Your task to perform on an android device: Open the calendar and show me this week's events Image 0: 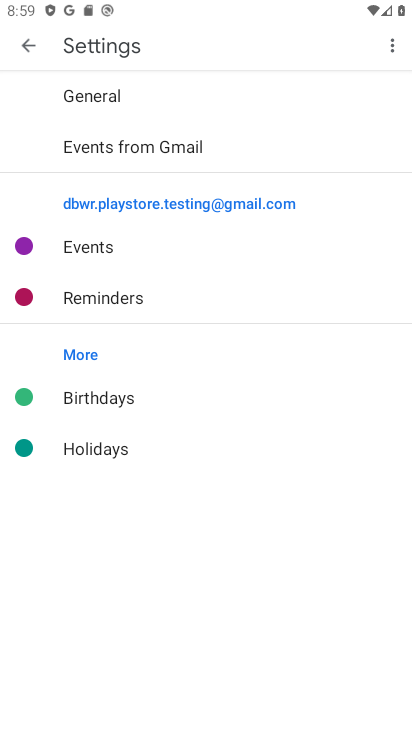
Step 0: press home button
Your task to perform on an android device: Open the calendar and show me this week's events Image 1: 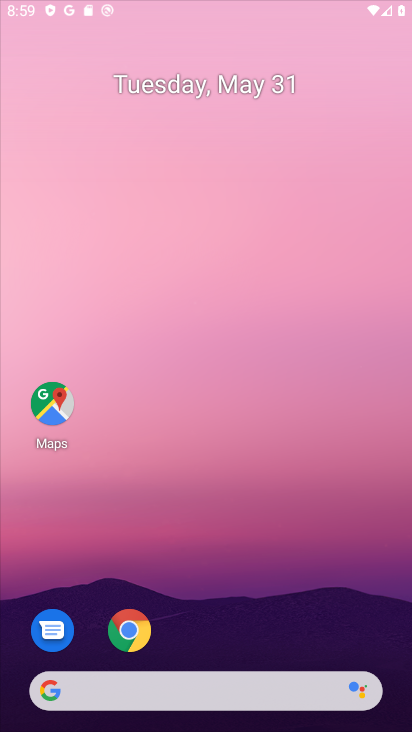
Step 1: drag from (109, 726) to (184, 0)
Your task to perform on an android device: Open the calendar and show me this week's events Image 2: 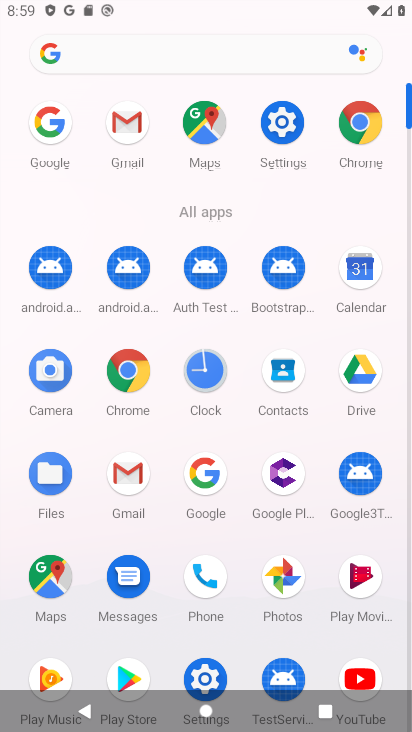
Step 2: click (345, 265)
Your task to perform on an android device: Open the calendar and show me this week's events Image 3: 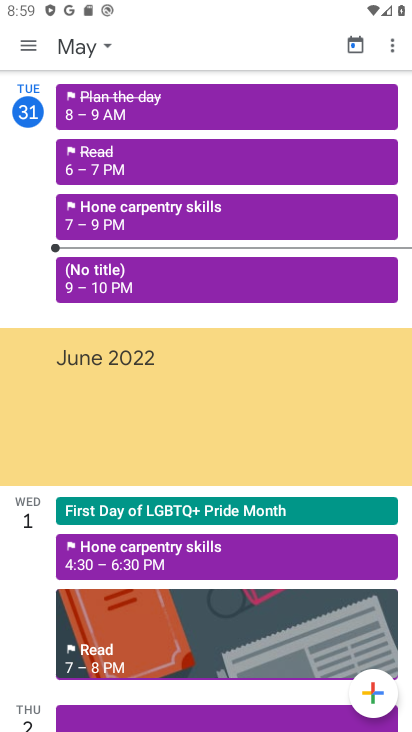
Step 3: click (93, 35)
Your task to perform on an android device: Open the calendar and show me this week's events Image 4: 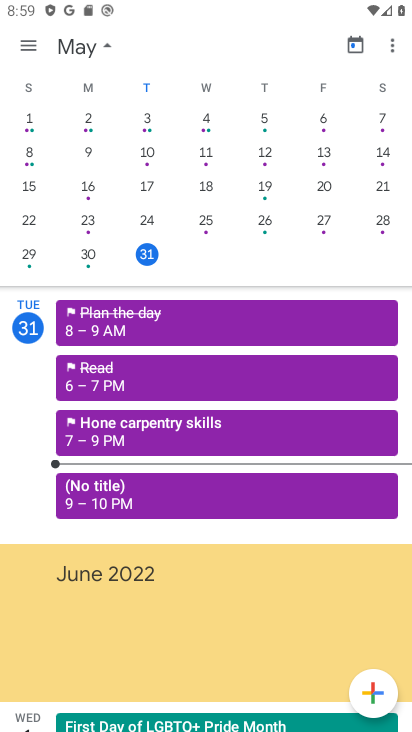
Step 4: drag from (253, 253) to (5, 213)
Your task to perform on an android device: Open the calendar and show me this week's events Image 5: 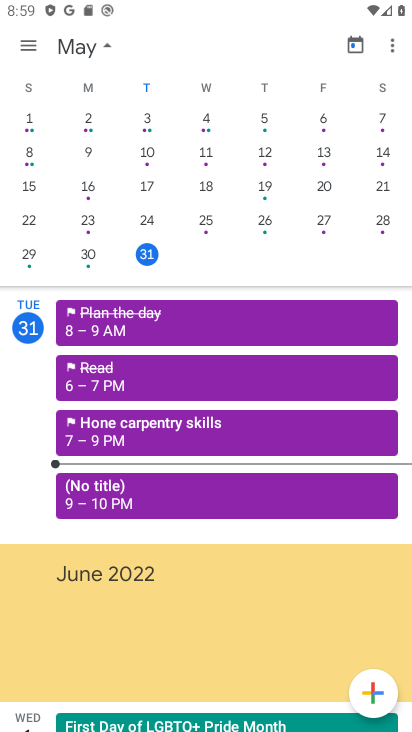
Step 5: click (349, 261)
Your task to perform on an android device: Open the calendar and show me this week's events Image 6: 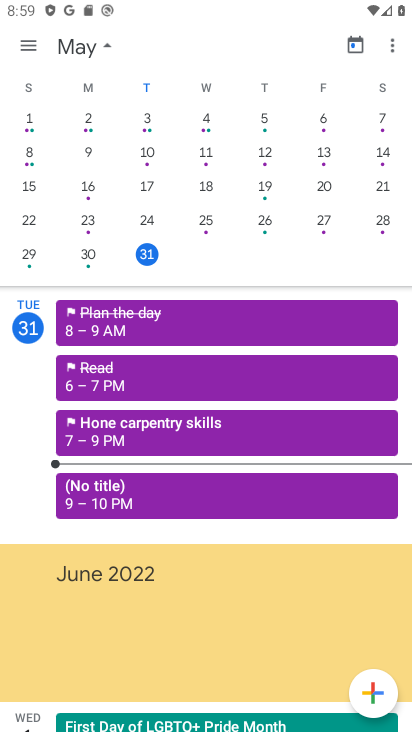
Step 6: click (86, 43)
Your task to perform on an android device: Open the calendar and show me this week's events Image 7: 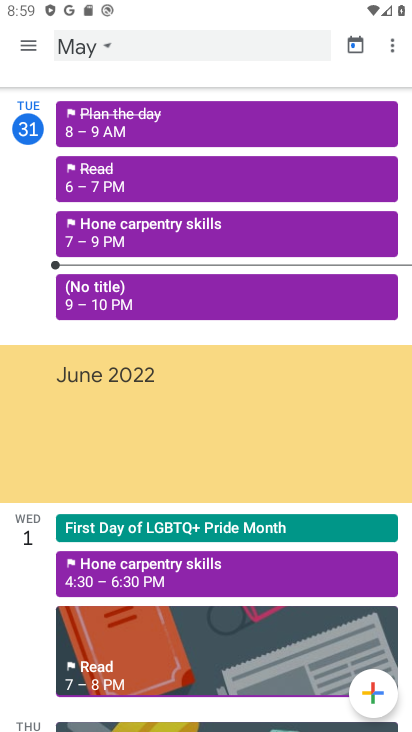
Step 7: click (34, 47)
Your task to perform on an android device: Open the calendar and show me this week's events Image 8: 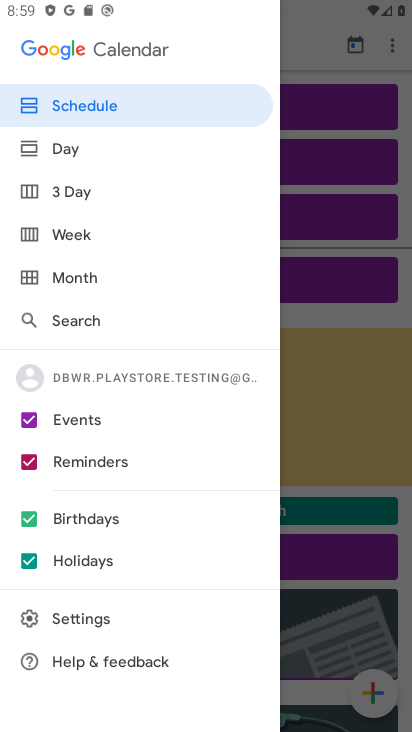
Step 8: click (57, 234)
Your task to perform on an android device: Open the calendar and show me this week's events Image 9: 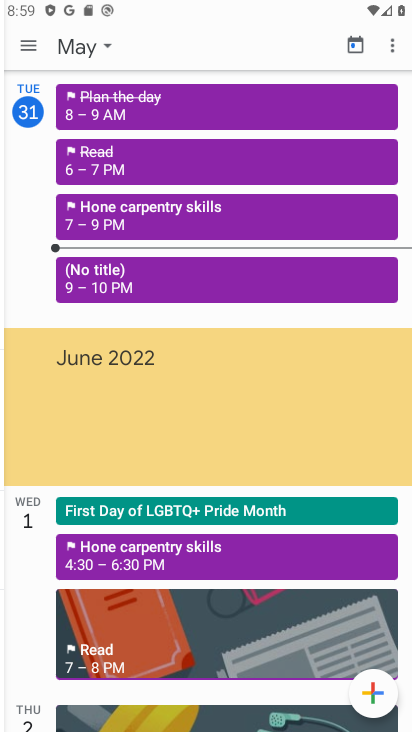
Step 9: click (26, 469)
Your task to perform on an android device: Open the calendar and show me this week's events Image 10: 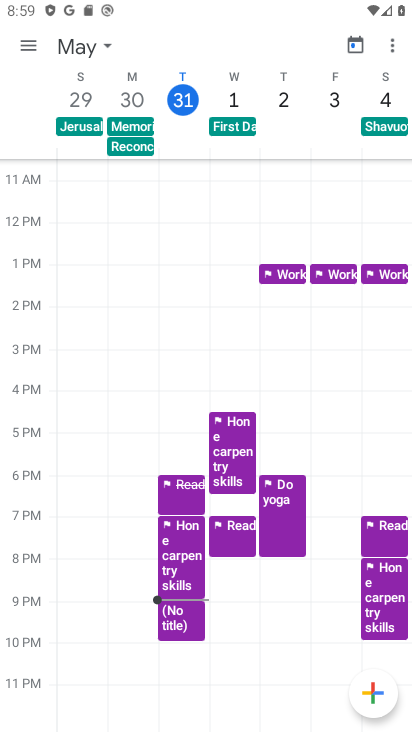
Step 10: click (25, 42)
Your task to perform on an android device: Open the calendar and show me this week's events Image 11: 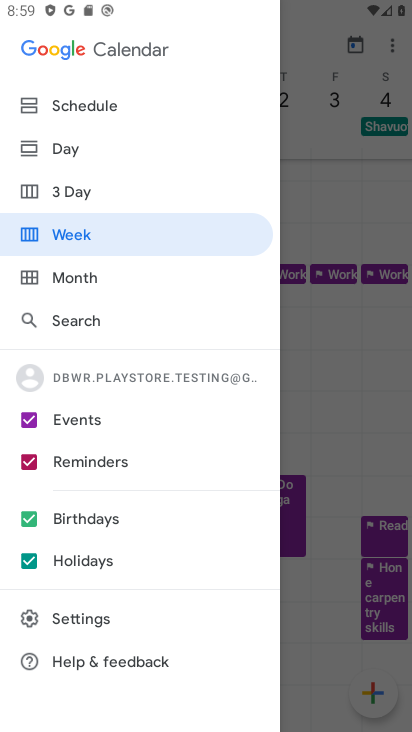
Step 11: click (27, 512)
Your task to perform on an android device: Open the calendar and show me this week's events Image 12: 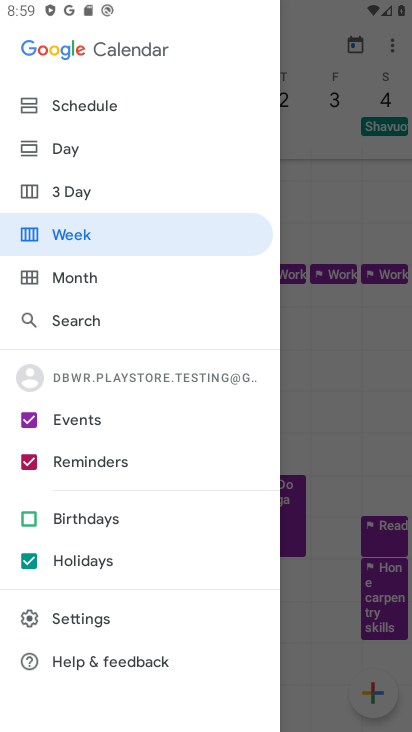
Step 12: click (28, 461)
Your task to perform on an android device: Open the calendar and show me this week's events Image 13: 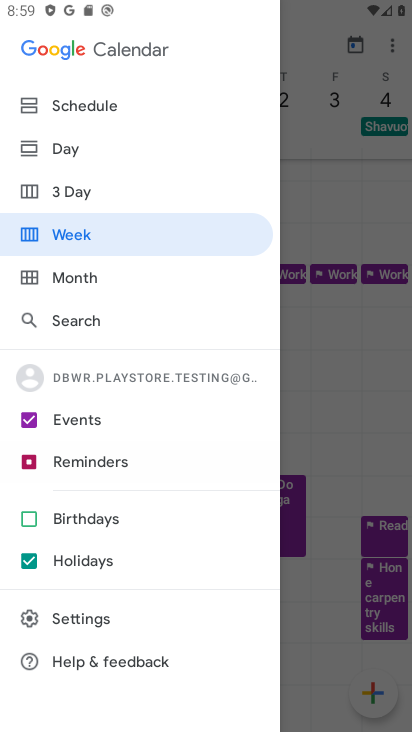
Step 13: click (24, 570)
Your task to perform on an android device: Open the calendar and show me this week's events Image 14: 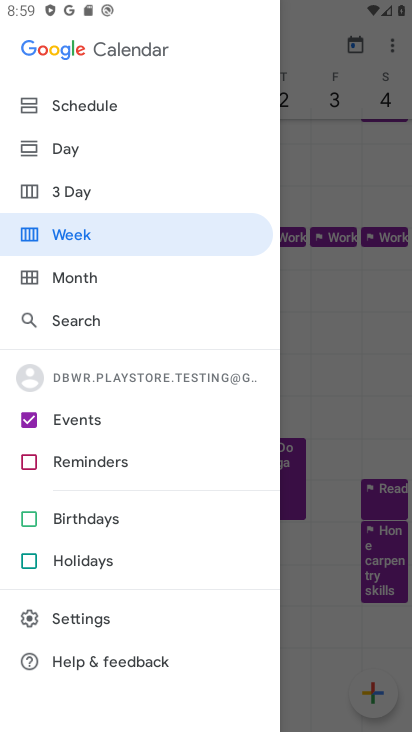
Step 14: click (301, 91)
Your task to perform on an android device: Open the calendar and show me this week's events Image 15: 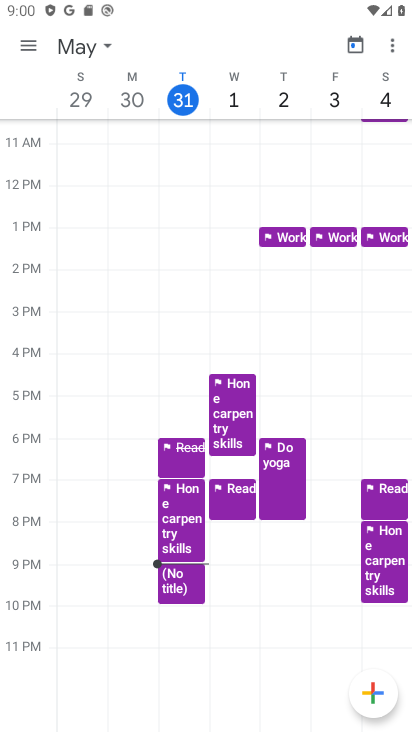
Step 15: task complete